Your task to perform on an android device: delete a single message in the gmail app Image 0: 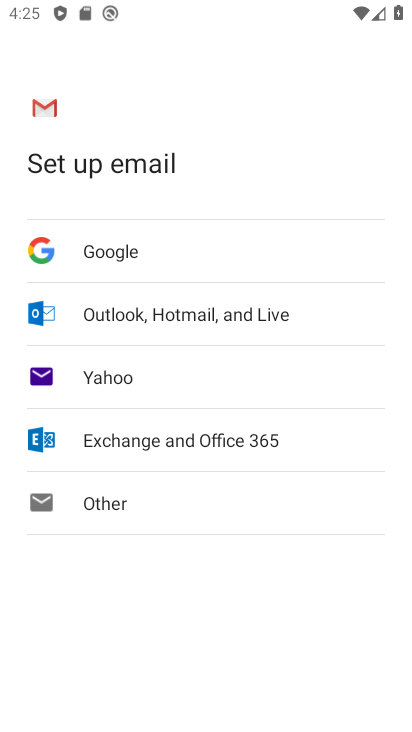
Step 0: press home button
Your task to perform on an android device: delete a single message in the gmail app Image 1: 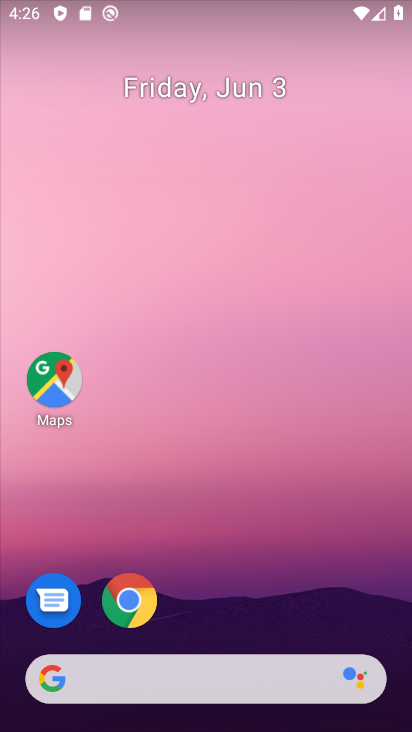
Step 1: drag from (222, 636) to (321, 188)
Your task to perform on an android device: delete a single message in the gmail app Image 2: 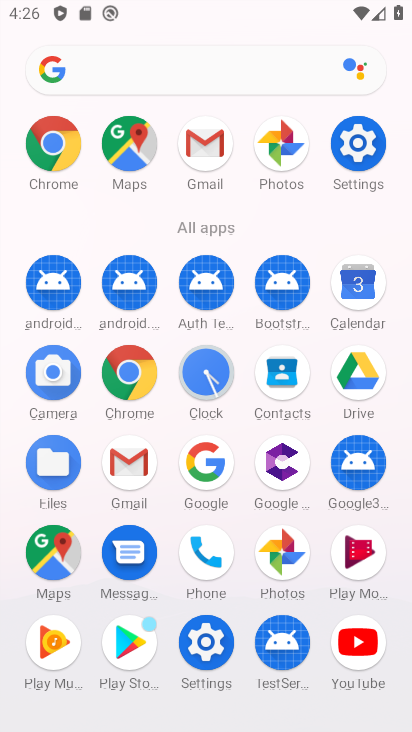
Step 2: click (121, 483)
Your task to perform on an android device: delete a single message in the gmail app Image 3: 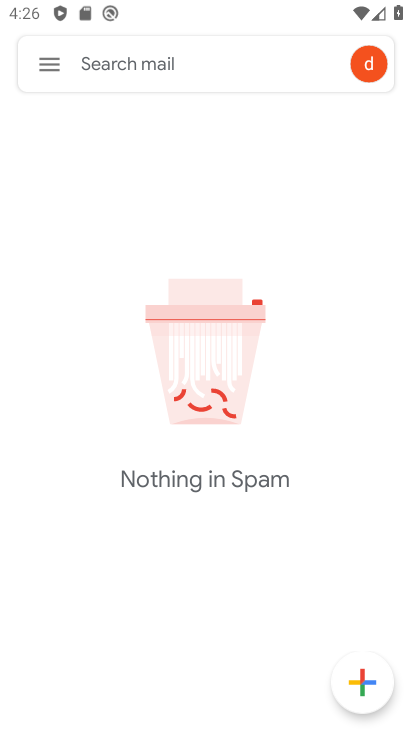
Step 3: click (50, 48)
Your task to perform on an android device: delete a single message in the gmail app Image 4: 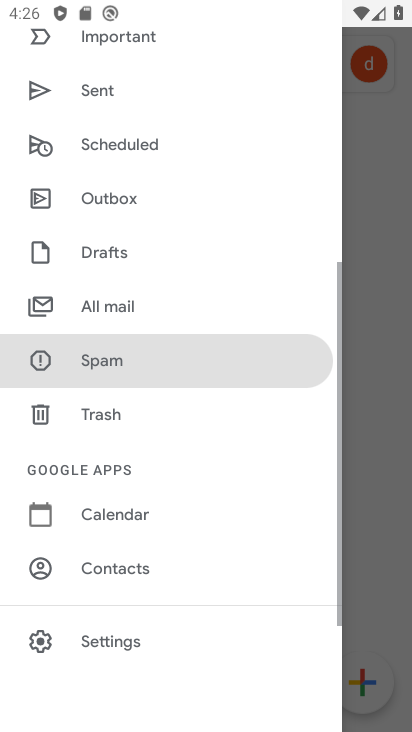
Step 4: click (120, 308)
Your task to perform on an android device: delete a single message in the gmail app Image 5: 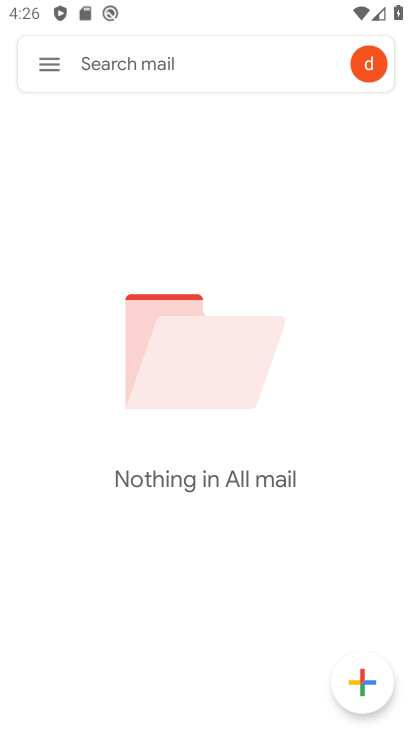
Step 5: task complete